Your task to perform on an android device: Open Maps and search for coffee Image 0: 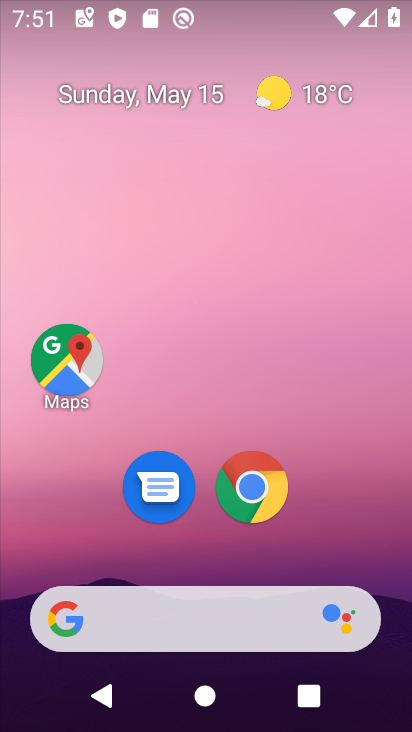
Step 0: click (63, 356)
Your task to perform on an android device: Open Maps and search for coffee Image 1: 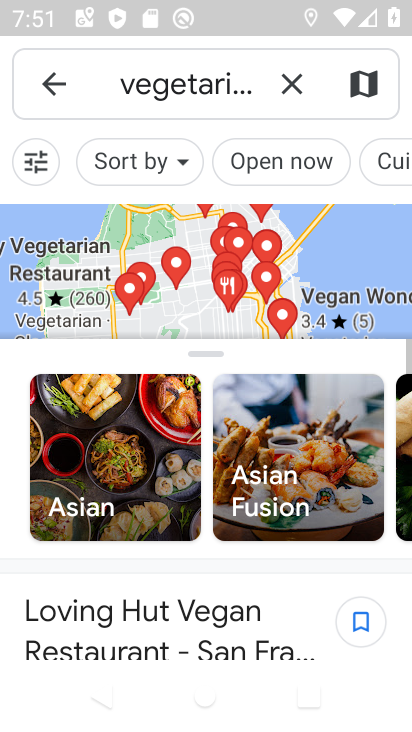
Step 1: click (287, 81)
Your task to perform on an android device: Open Maps and search for coffee Image 2: 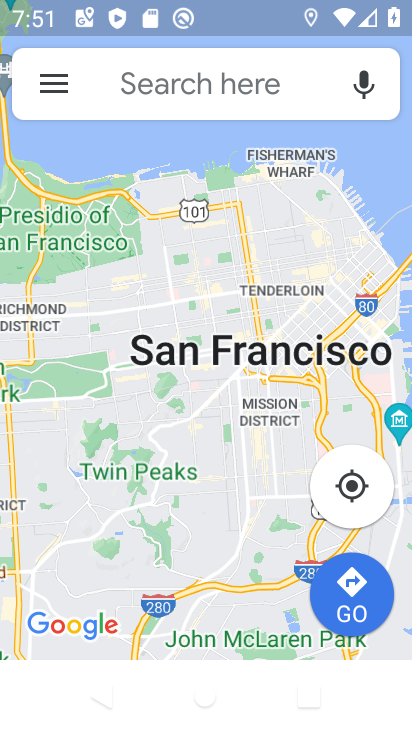
Step 2: click (170, 88)
Your task to perform on an android device: Open Maps and search for coffee Image 3: 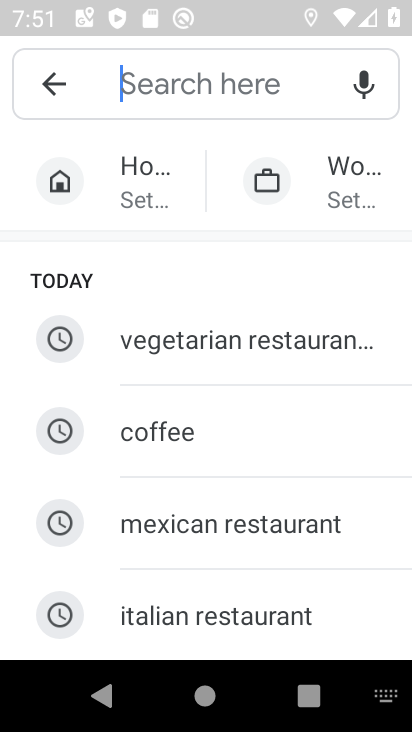
Step 3: type "coffee"
Your task to perform on an android device: Open Maps and search for coffee Image 4: 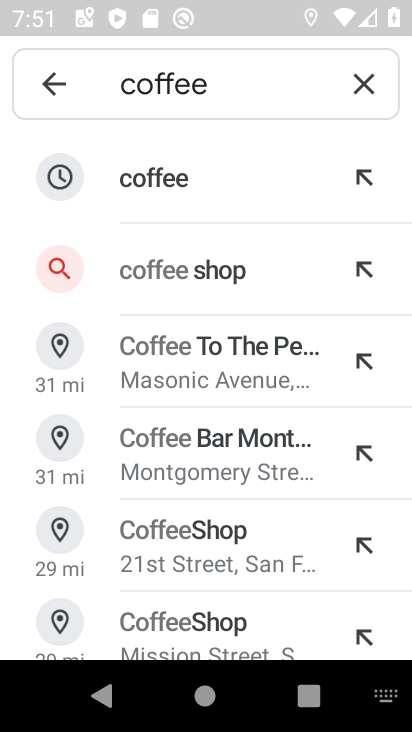
Step 4: click (163, 261)
Your task to perform on an android device: Open Maps and search for coffee Image 5: 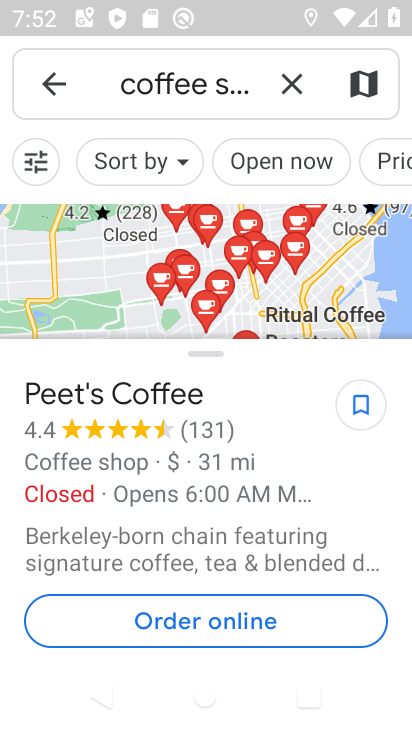
Step 5: task complete